Your task to perform on an android device: turn off data saver in the chrome app Image 0: 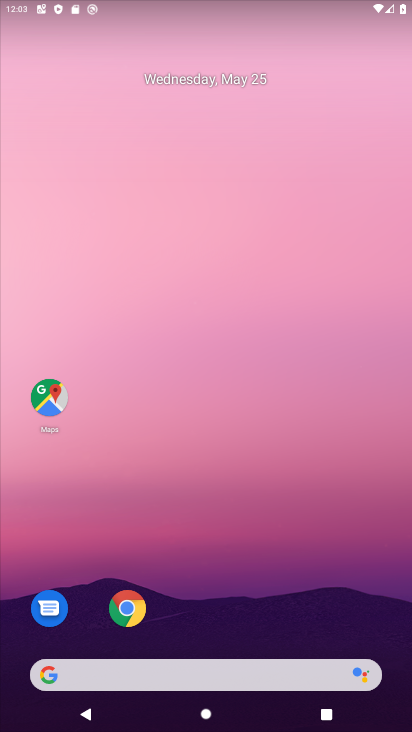
Step 0: drag from (269, 611) to (318, 0)
Your task to perform on an android device: turn off data saver in the chrome app Image 1: 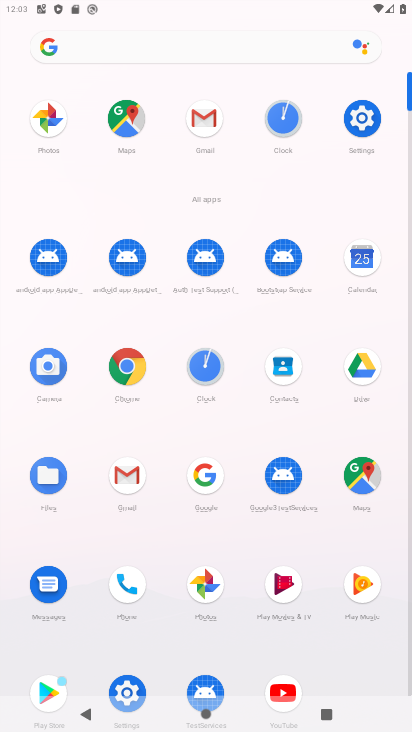
Step 1: click (354, 164)
Your task to perform on an android device: turn off data saver in the chrome app Image 2: 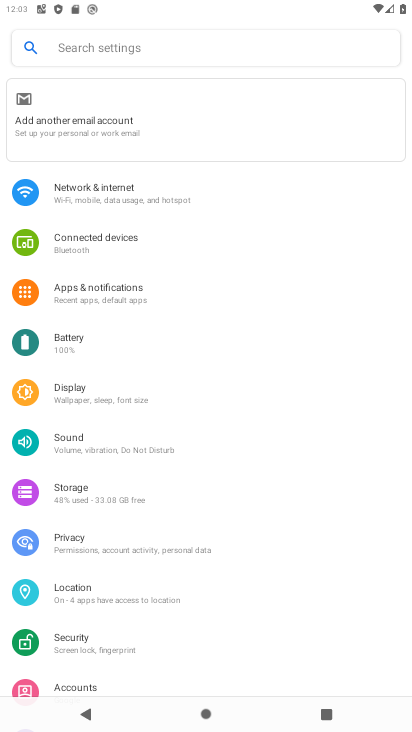
Step 2: click (120, 592)
Your task to perform on an android device: turn off data saver in the chrome app Image 3: 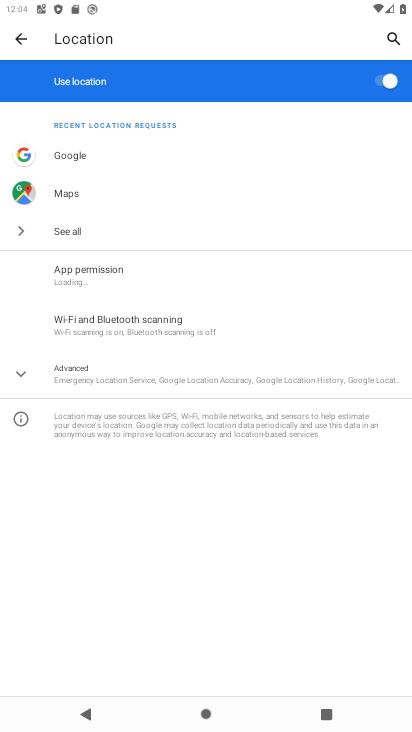
Step 3: click (133, 379)
Your task to perform on an android device: turn off data saver in the chrome app Image 4: 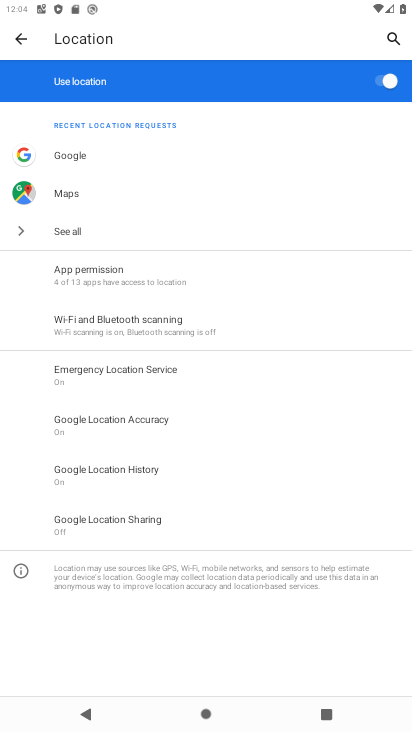
Step 4: press home button
Your task to perform on an android device: turn off data saver in the chrome app Image 5: 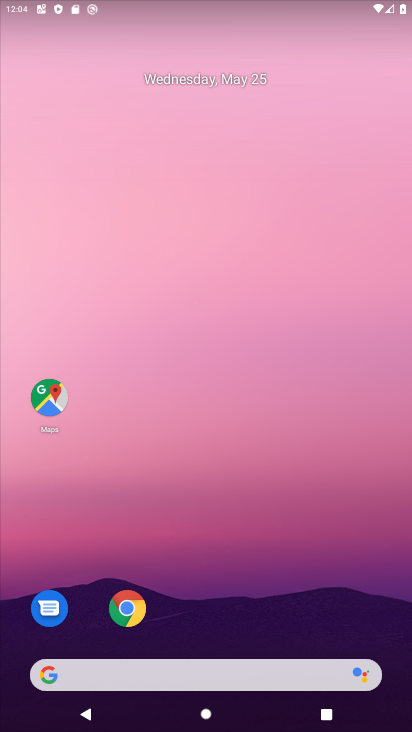
Step 5: click (137, 603)
Your task to perform on an android device: turn off data saver in the chrome app Image 6: 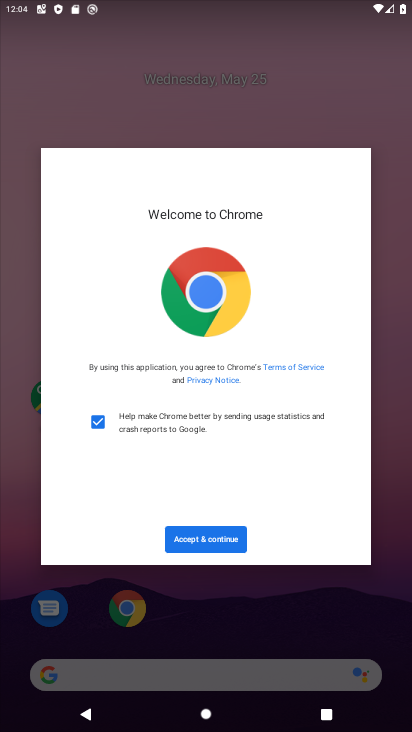
Step 6: click (200, 534)
Your task to perform on an android device: turn off data saver in the chrome app Image 7: 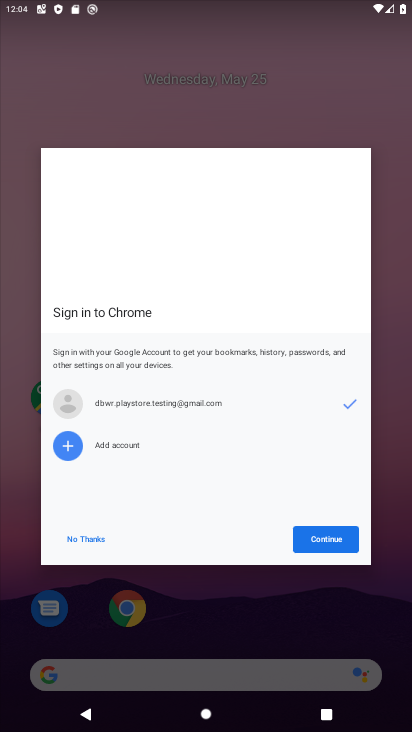
Step 7: click (337, 531)
Your task to perform on an android device: turn off data saver in the chrome app Image 8: 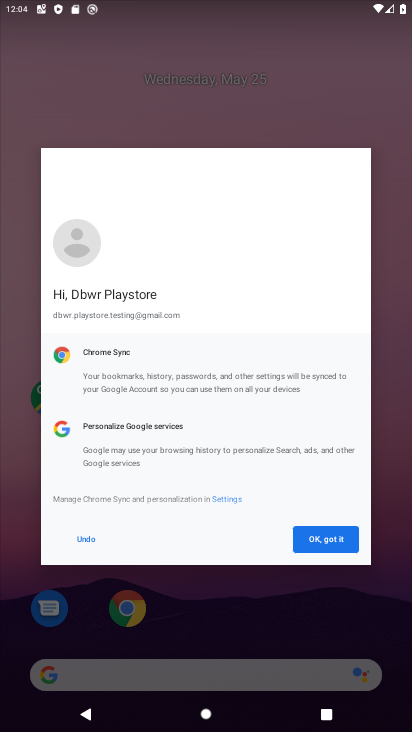
Step 8: click (317, 534)
Your task to perform on an android device: turn off data saver in the chrome app Image 9: 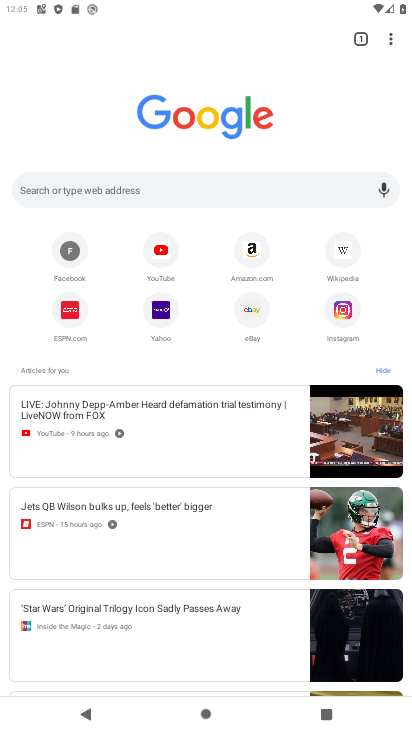
Step 9: click (397, 43)
Your task to perform on an android device: turn off data saver in the chrome app Image 10: 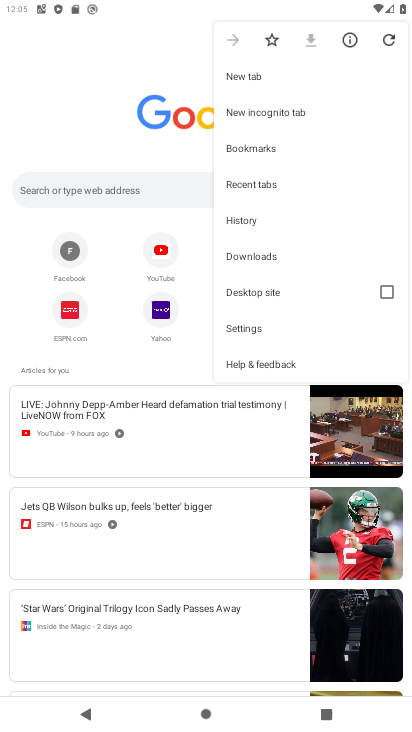
Step 10: click (387, 26)
Your task to perform on an android device: turn off data saver in the chrome app Image 11: 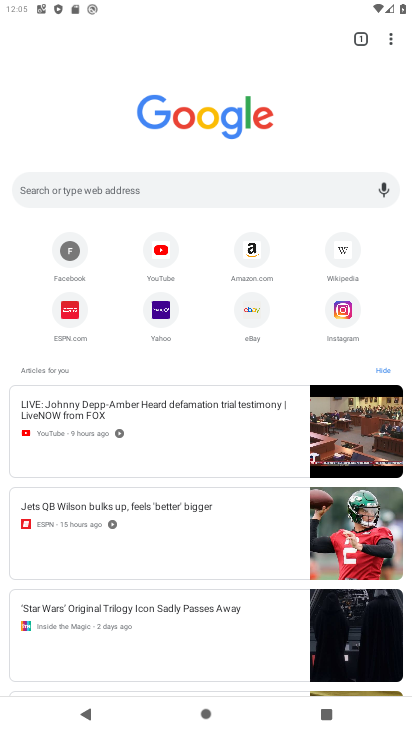
Step 11: click (394, 35)
Your task to perform on an android device: turn off data saver in the chrome app Image 12: 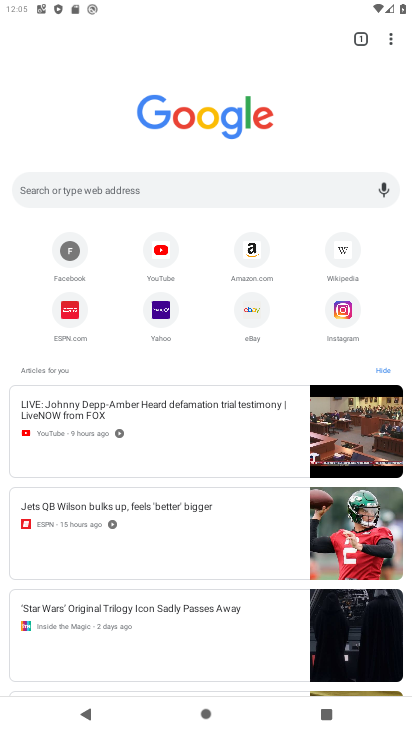
Step 12: click (385, 47)
Your task to perform on an android device: turn off data saver in the chrome app Image 13: 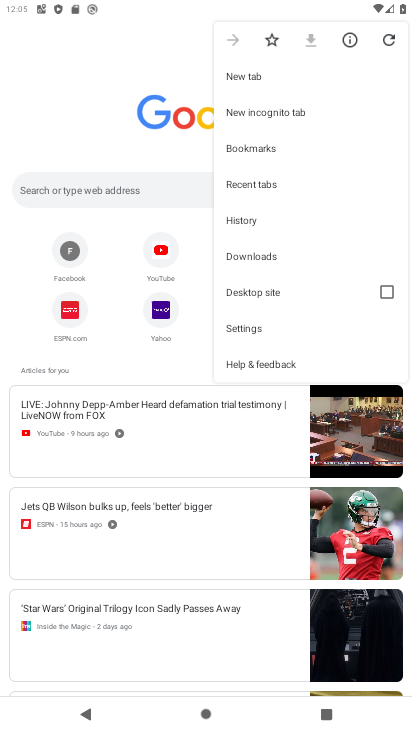
Step 13: click (240, 322)
Your task to perform on an android device: turn off data saver in the chrome app Image 14: 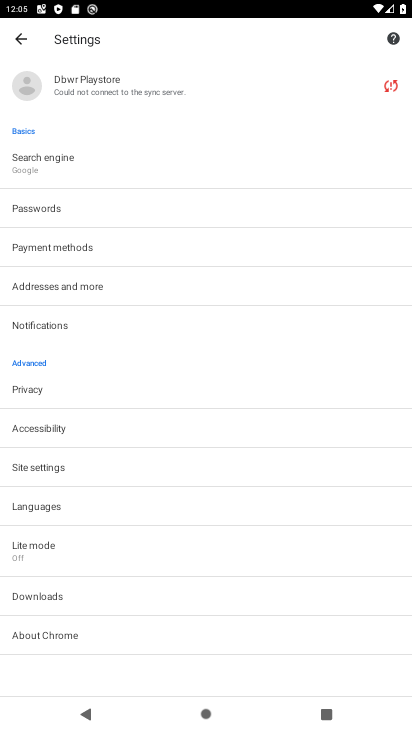
Step 14: drag from (110, 624) to (82, 221)
Your task to perform on an android device: turn off data saver in the chrome app Image 15: 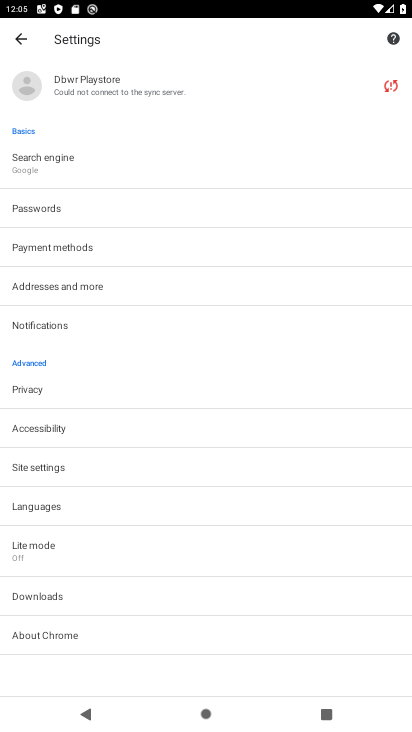
Step 15: click (75, 554)
Your task to perform on an android device: turn off data saver in the chrome app Image 16: 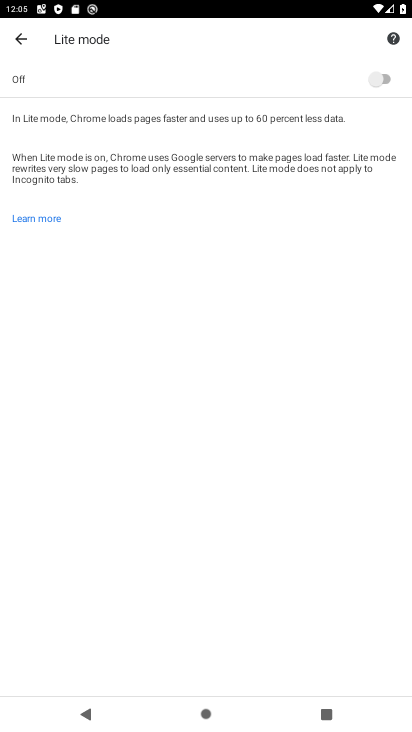
Step 16: task complete